Your task to perform on an android device: open chrome and create a bookmark for the current page Image 0: 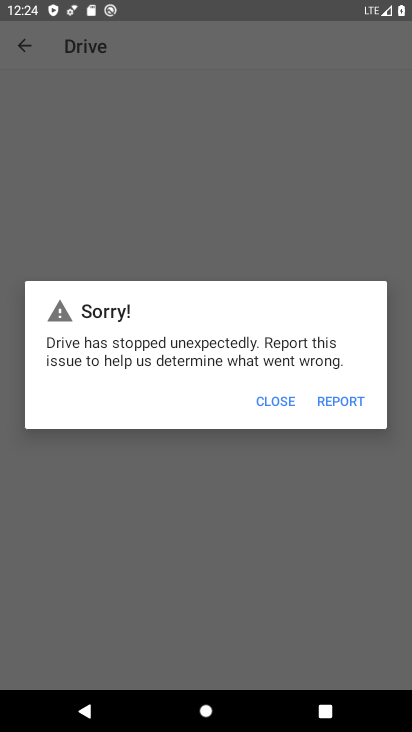
Step 0: press home button
Your task to perform on an android device: open chrome and create a bookmark for the current page Image 1: 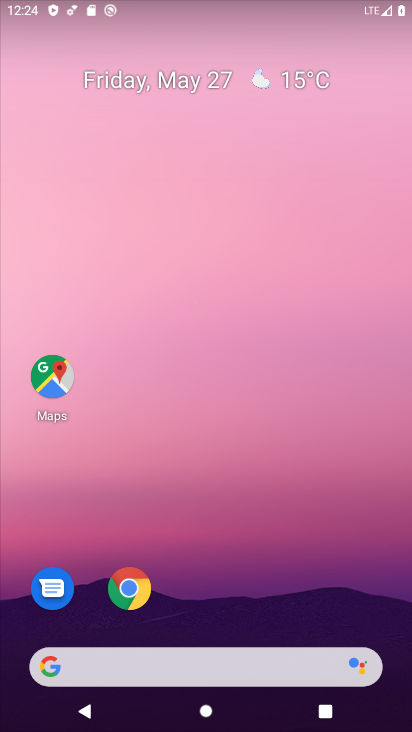
Step 1: click (131, 583)
Your task to perform on an android device: open chrome and create a bookmark for the current page Image 2: 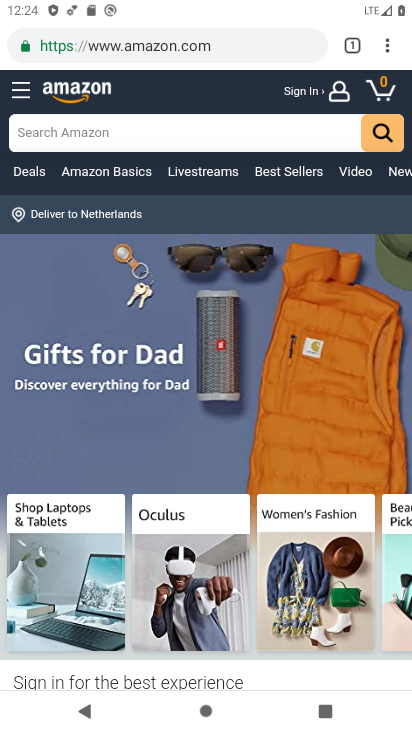
Step 2: click (382, 51)
Your task to perform on an android device: open chrome and create a bookmark for the current page Image 3: 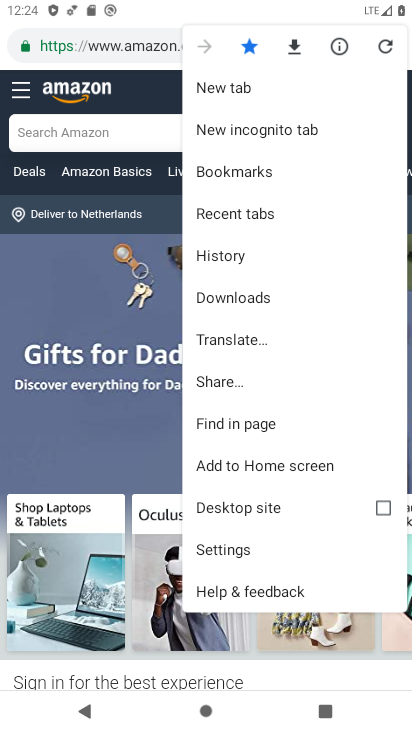
Step 3: task complete